Your task to perform on an android device: set the timer Image 0: 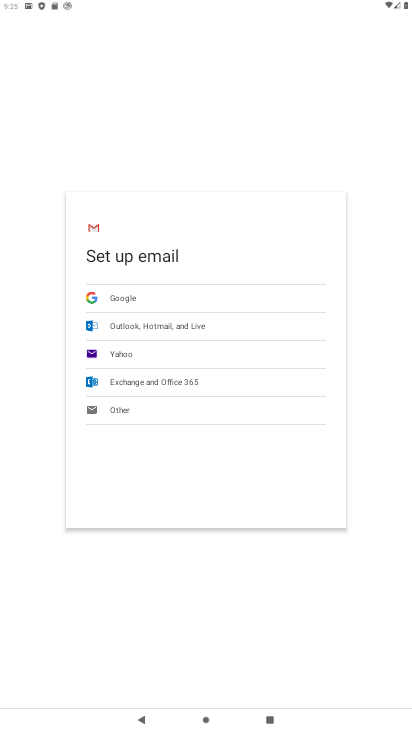
Step 0: press home button
Your task to perform on an android device: set the timer Image 1: 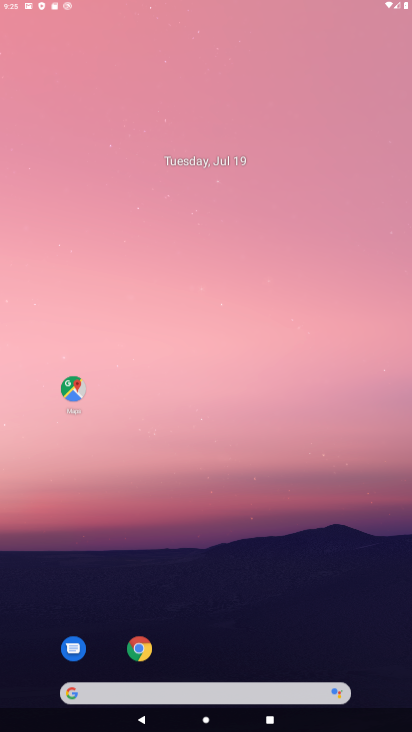
Step 1: drag from (396, 672) to (255, 75)
Your task to perform on an android device: set the timer Image 2: 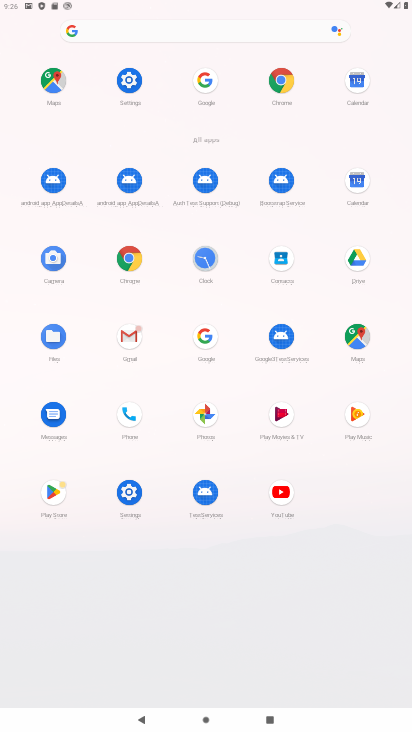
Step 2: click (203, 264)
Your task to perform on an android device: set the timer Image 3: 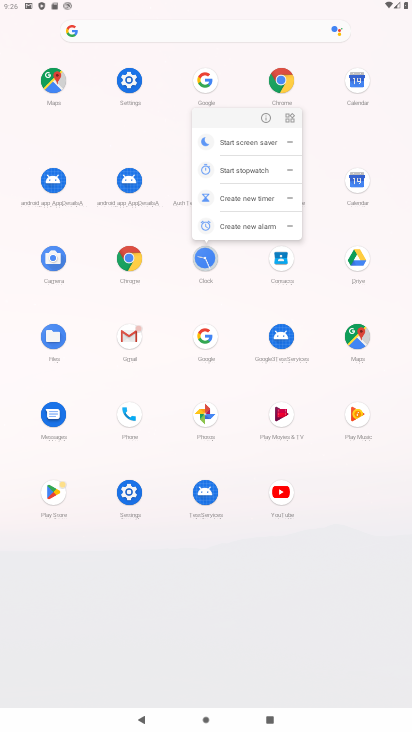
Step 3: click (203, 264)
Your task to perform on an android device: set the timer Image 4: 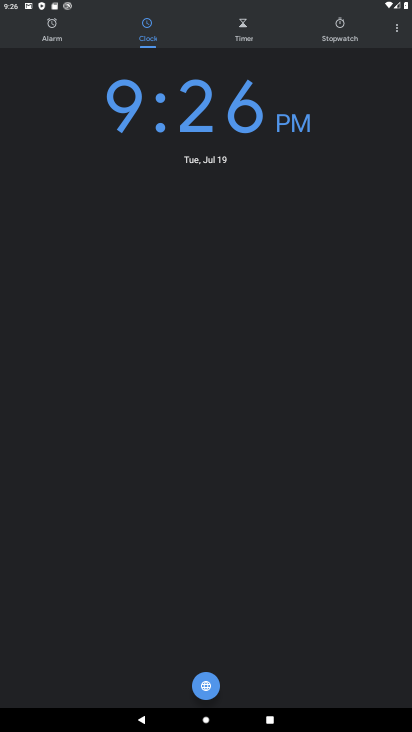
Step 4: click (242, 31)
Your task to perform on an android device: set the timer Image 5: 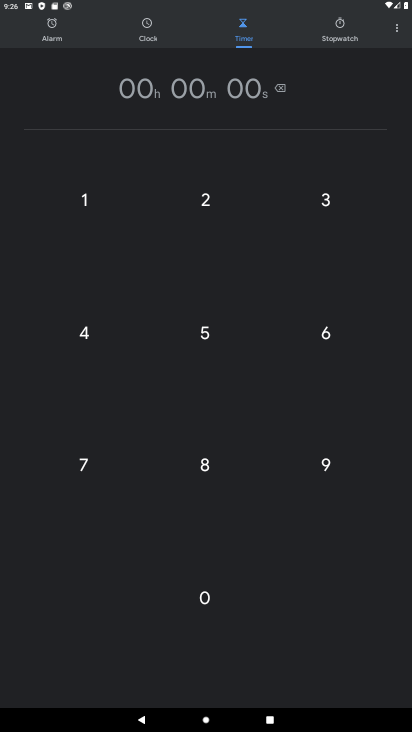
Step 5: click (315, 202)
Your task to perform on an android device: set the timer Image 6: 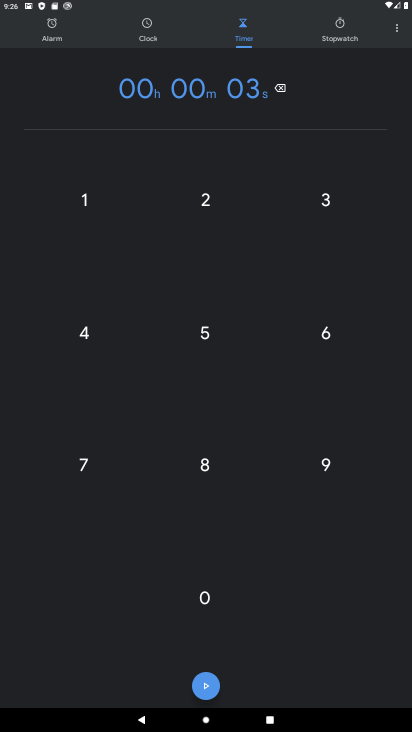
Step 6: click (207, 198)
Your task to perform on an android device: set the timer Image 7: 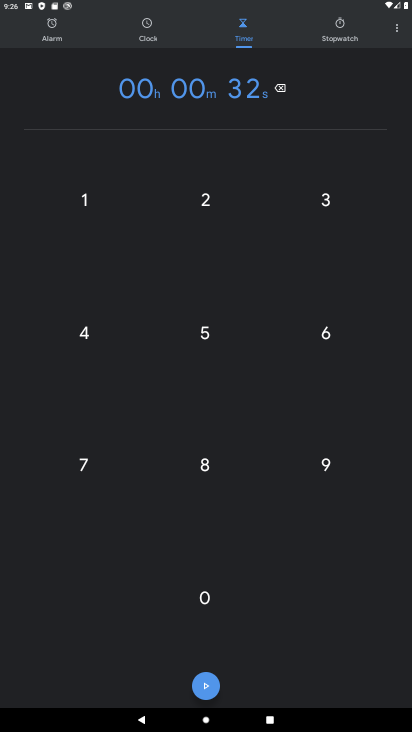
Step 7: click (207, 198)
Your task to perform on an android device: set the timer Image 8: 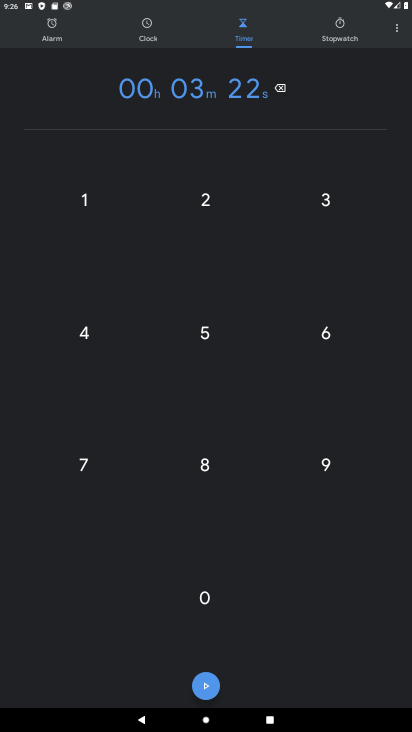
Step 8: click (207, 198)
Your task to perform on an android device: set the timer Image 9: 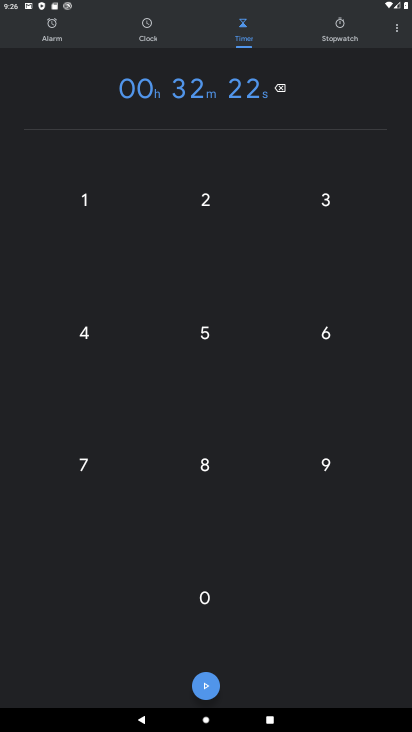
Step 9: click (207, 198)
Your task to perform on an android device: set the timer Image 10: 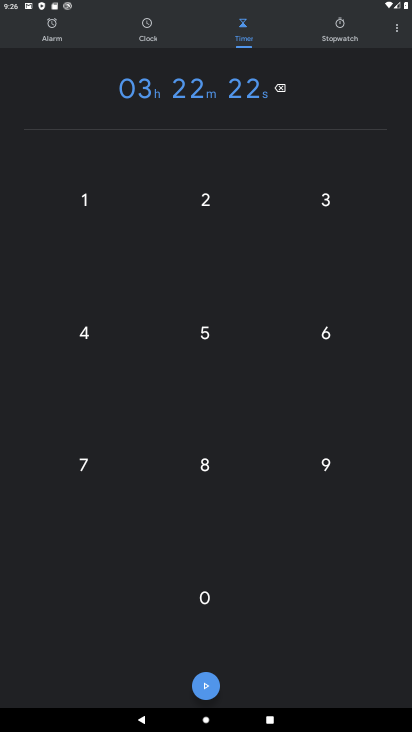
Step 10: task complete